Your task to perform on an android device: refresh tabs in the chrome app Image 0: 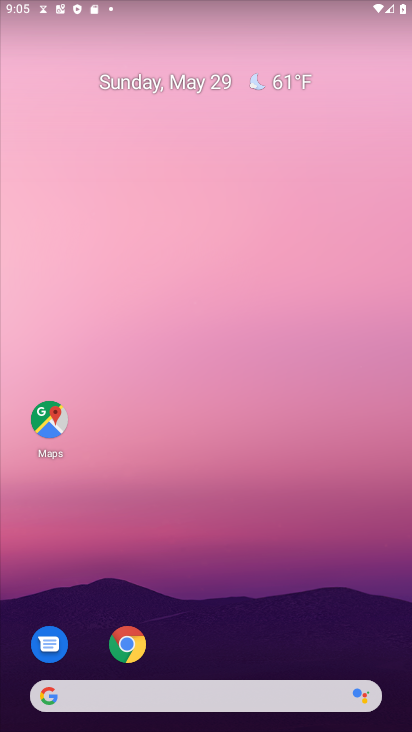
Step 0: click (129, 647)
Your task to perform on an android device: refresh tabs in the chrome app Image 1: 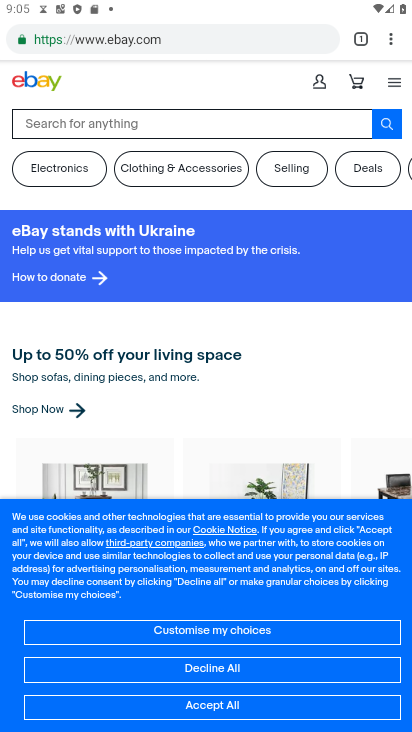
Step 1: click (389, 35)
Your task to perform on an android device: refresh tabs in the chrome app Image 2: 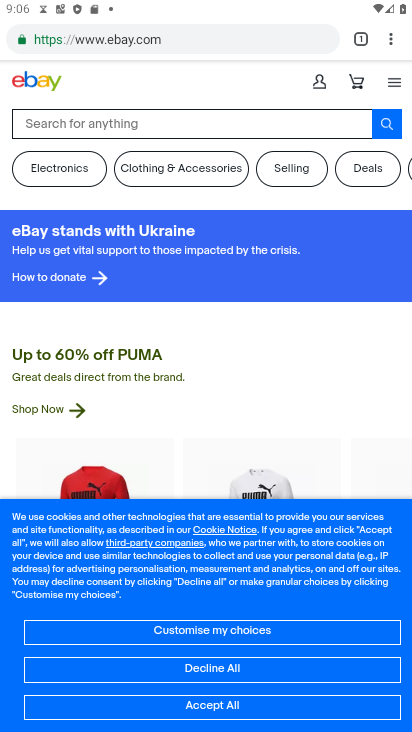
Step 2: task complete